Your task to perform on an android device: open a new tab in the chrome app Image 0: 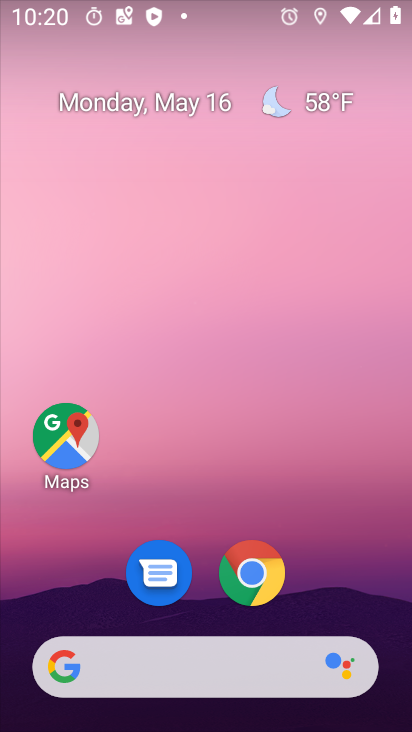
Step 0: drag from (354, 542) to (116, 213)
Your task to perform on an android device: open a new tab in the chrome app Image 1: 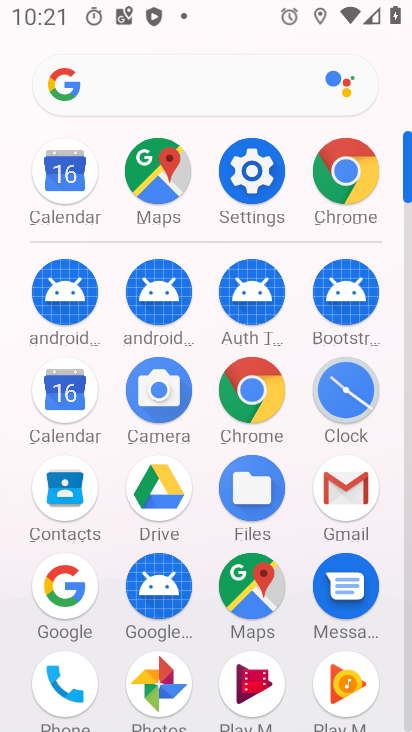
Step 1: click (340, 165)
Your task to perform on an android device: open a new tab in the chrome app Image 2: 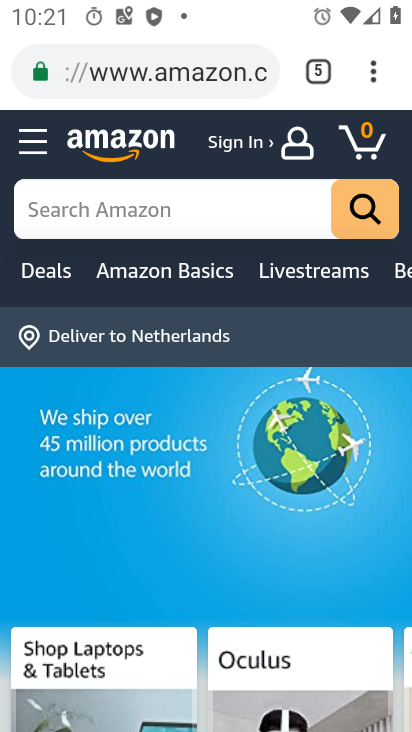
Step 2: drag from (374, 67) to (158, 329)
Your task to perform on an android device: open a new tab in the chrome app Image 3: 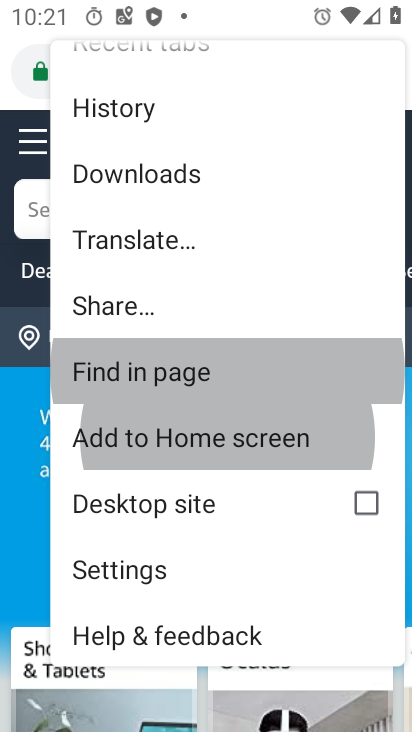
Step 3: drag from (158, 161) to (371, 67)
Your task to perform on an android device: open a new tab in the chrome app Image 4: 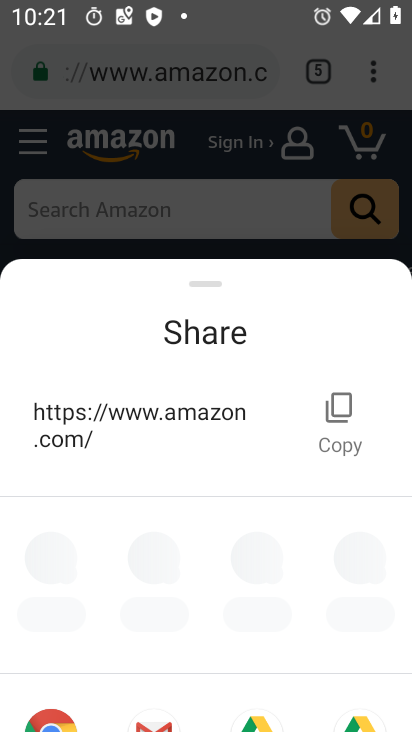
Step 4: click (372, 67)
Your task to perform on an android device: open a new tab in the chrome app Image 5: 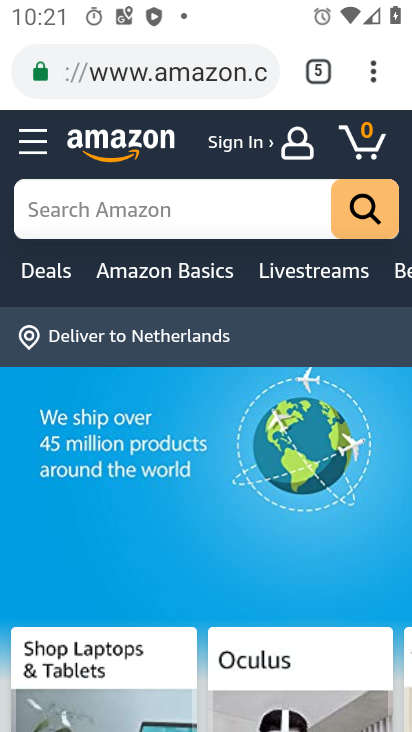
Step 5: click (372, 67)
Your task to perform on an android device: open a new tab in the chrome app Image 6: 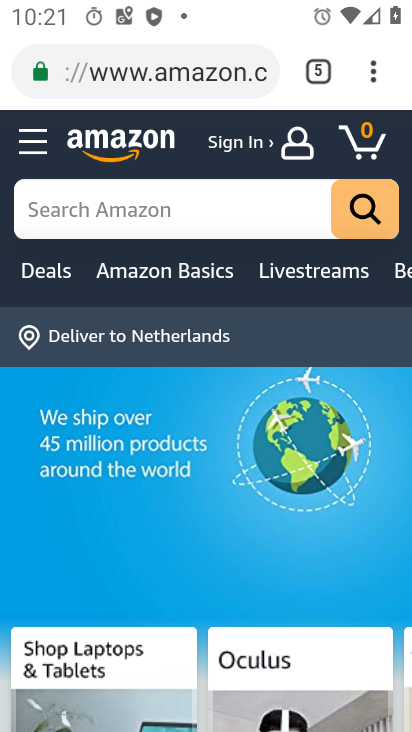
Step 6: click (372, 67)
Your task to perform on an android device: open a new tab in the chrome app Image 7: 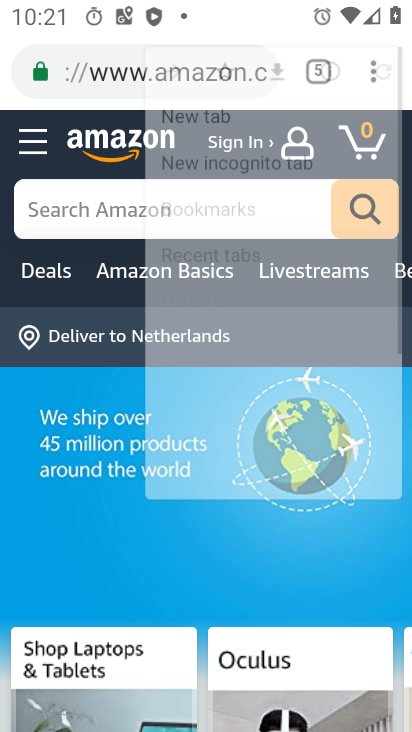
Step 7: click (374, 67)
Your task to perform on an android device: open a new tab in the chrome app Image 8: 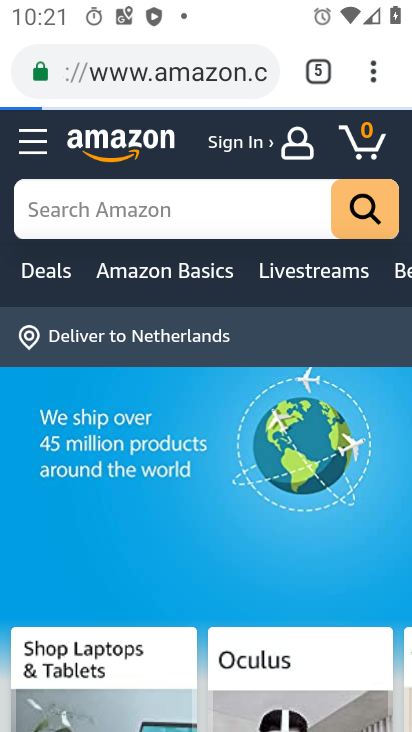
Step 8: click (375, 67)
Your task to perform on an android device: open a new tab in the chrome app Image 9: 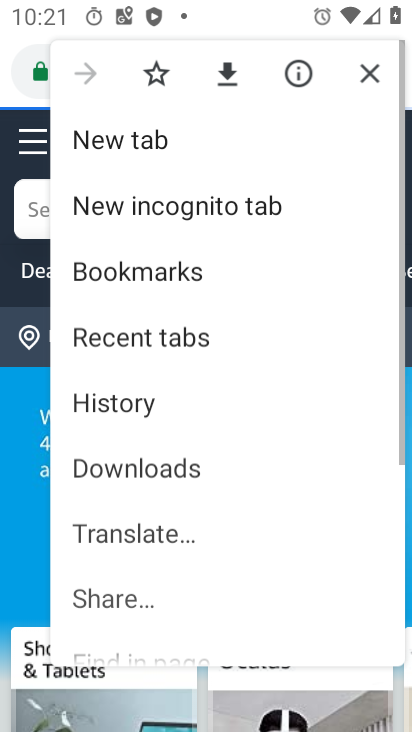
Step 9: click (374, 79)
Your task to perform on an android device: open a new tab in the chrome app Image 10: 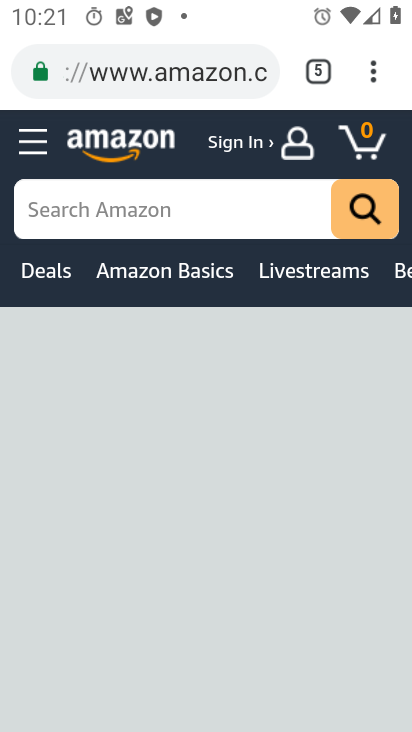
Step 10: click (364, 62)
Your task to perform on an android device: open a new tab in the chrome app Image 11: 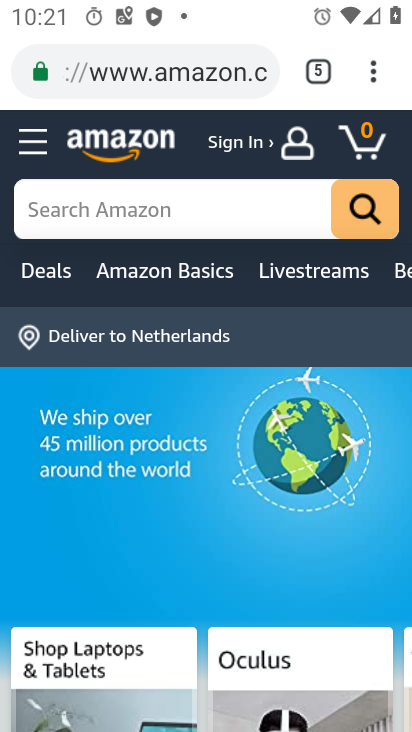
Step 11: drag from (369, 67) to (108, 142)
Your task to perform on an android device: open a new tab in the chrome app Image 12: 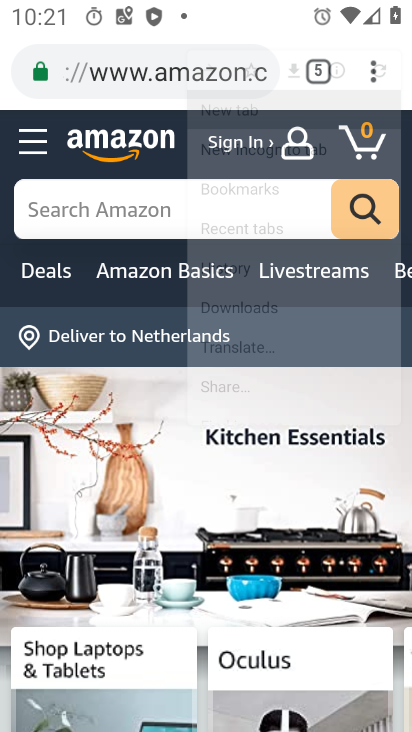
Step 12: click (111, 139)
Your task to perform on an android device: open a new tab in the chrome app Image 13: 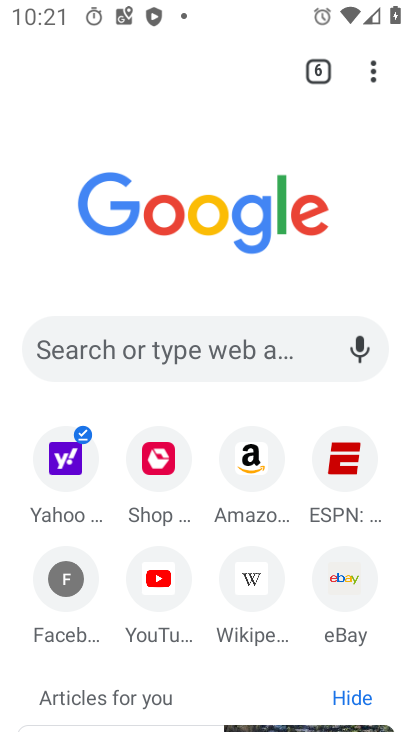
Step 13: task complete